Your task to perform on an android device: Check the news Image 0: 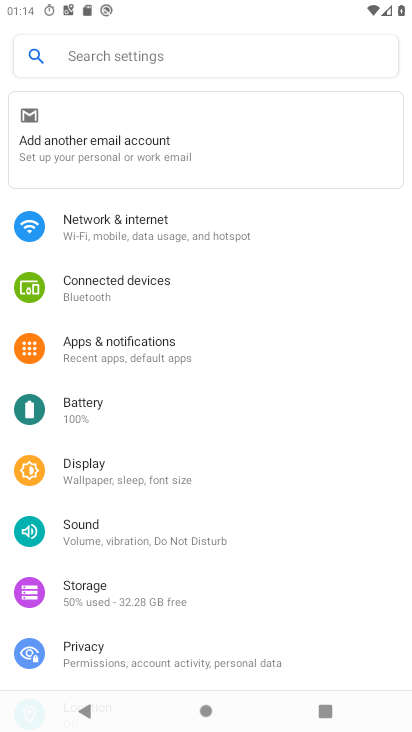
Step 0: press home button
Your task to perform on an android device: Check the news Image 1: 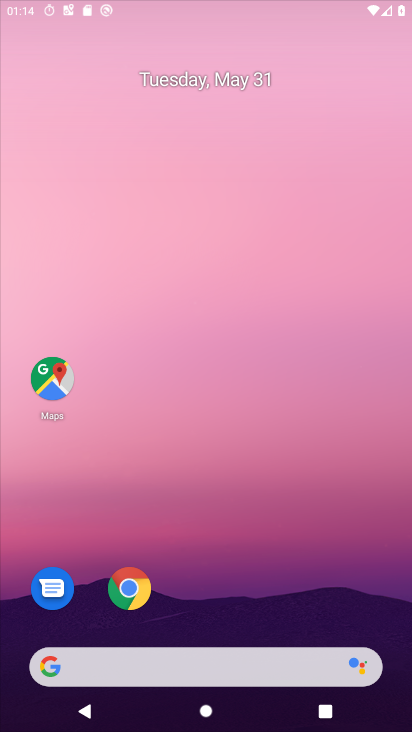
Step 1: drag from (190, 694) to (251, 98)
Your task to perform on an android device: Check the news Image 2: 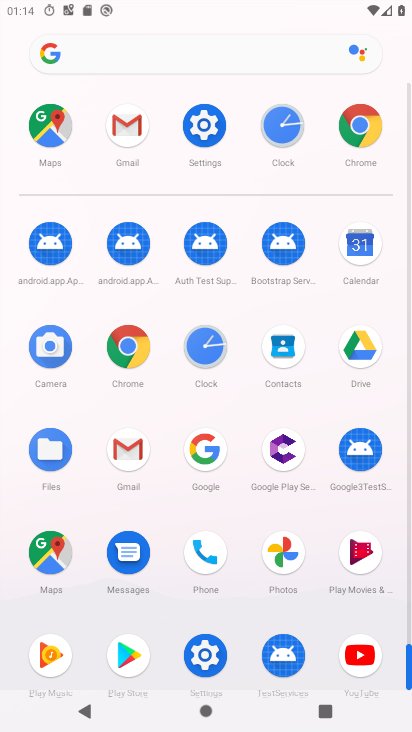
Step 2: click (115, 345)
Your task to perform on an android device: Check the news Image 3: 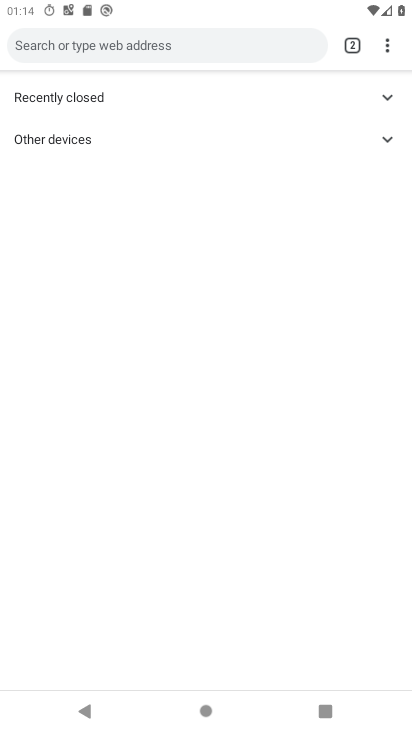
Step 3: click (199, 33)
Your task to perform on an android device: Check the news Image 4: 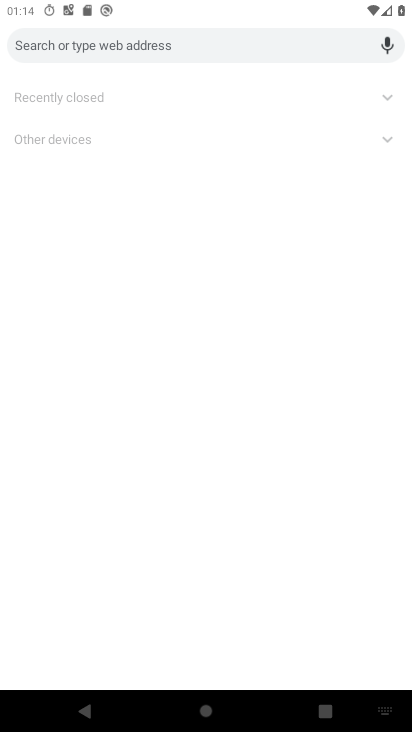
Step 4: type "news"
Your task to perform on an android device: Check the news Image 5: 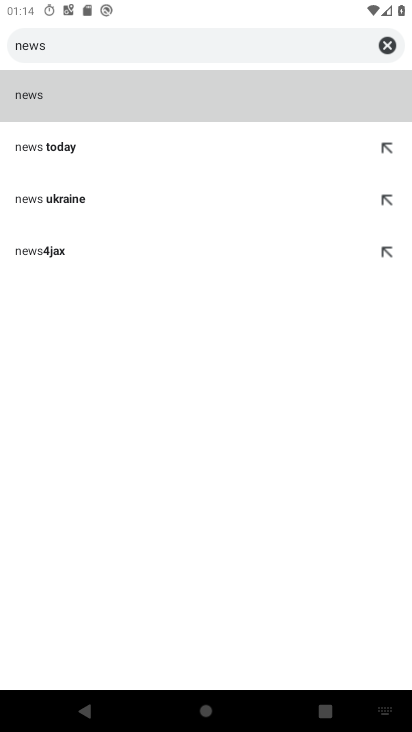
Step 5: click (75, 92)
Your task to perform on an android device: Check the news Image 6: 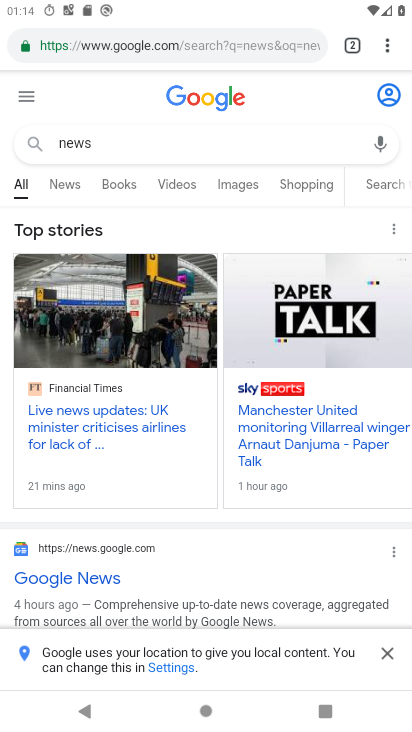
Step 6: task complete